Your task to perform on an android device: add a contact Image 0: 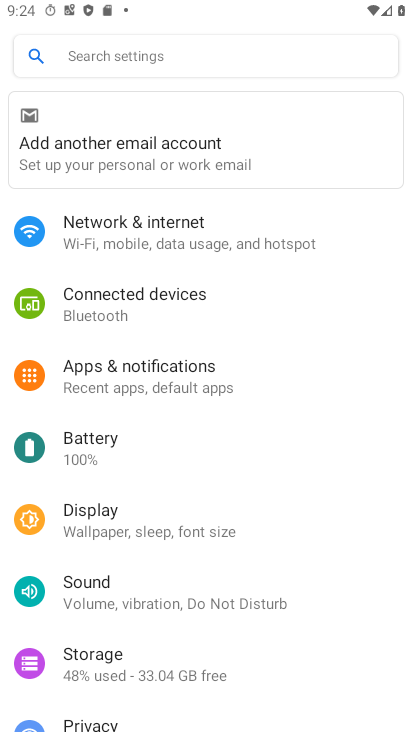
Step 0: press home button
Your task to perform on an android device: add a contact Image 1: 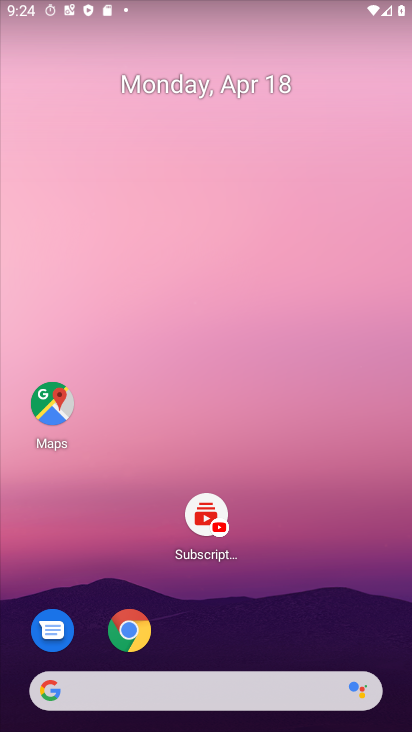
Step 1: drag from (225, 470) to (230, 120)
Your task to perform on an android device: add a contact Image 2: 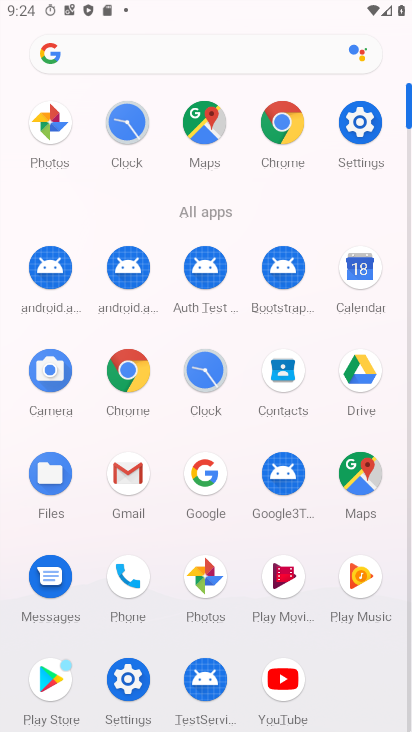
Step 2: click (286, 382)
Your task to perform on an android device: add a contact Image 3: 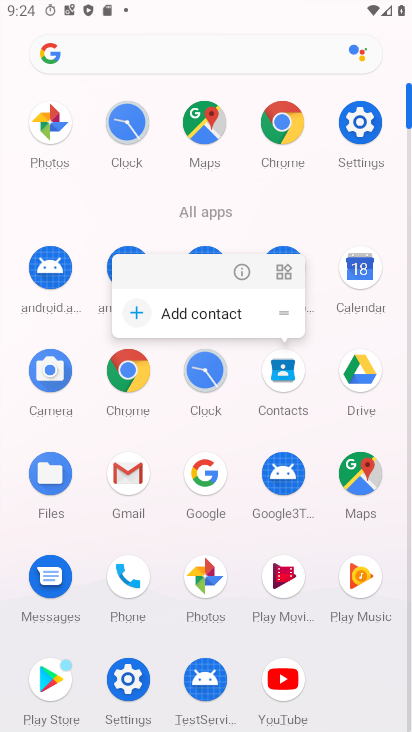
Step 3: click (286, 381)
Your task to perform on an android device: add a contact Image 4: 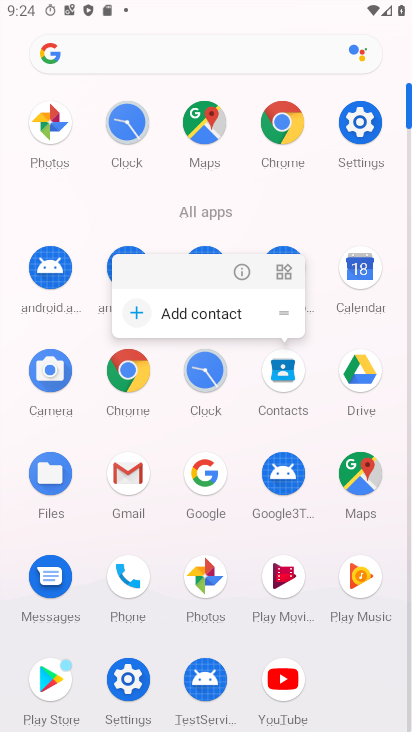
Step 4: click (286, 378)
Your task to perform on an android device: add a contact Image 5: 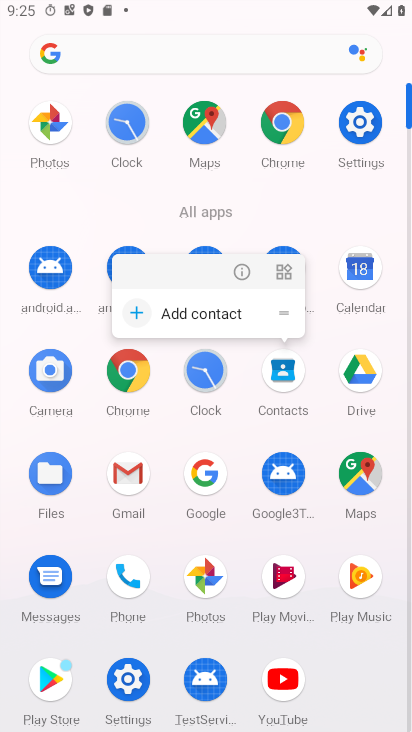
Step 5: click (278, 367)
Your task to perform on an android device: add a contact Image 6: 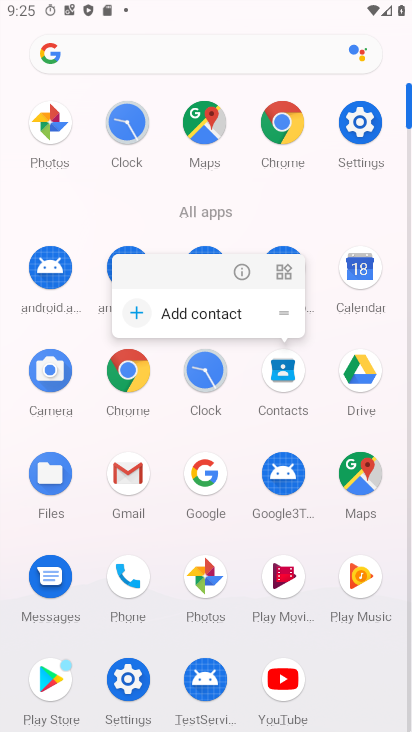
Step 6: click (290, 383)
Your task to perform on an android device: add a contact Image 7: 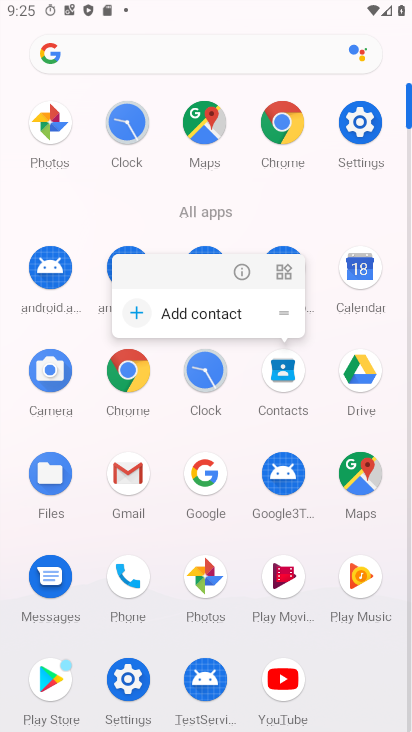
Step 7: click (283, 373)
Your task to perform on an android device: add a contact Image 8: 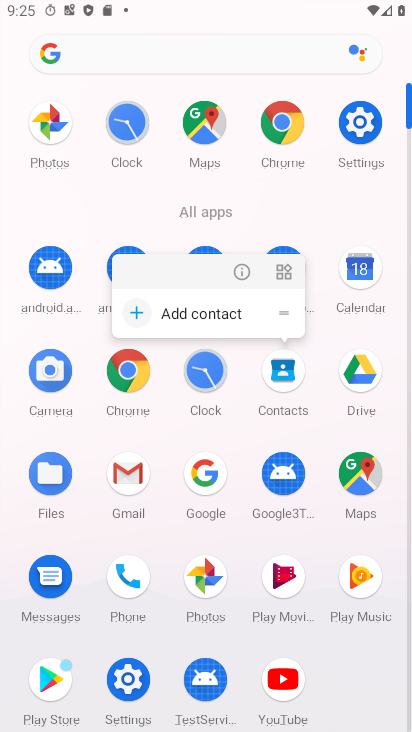
Step 8: click (284, 372)
Your task to perform on an android device: add a contact Image 9: 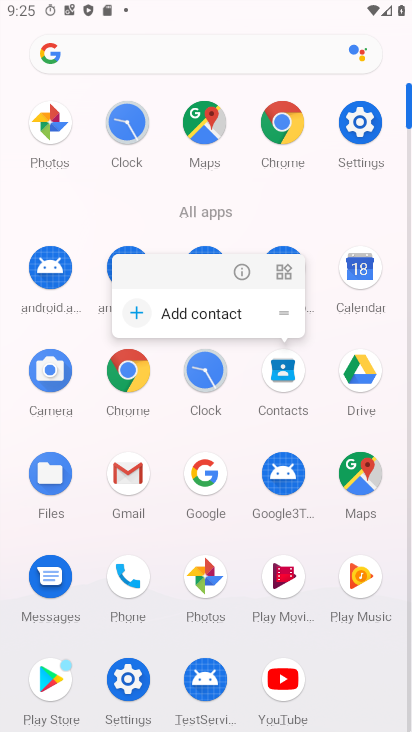
Step 9: click (284, 372)
Your task to perform on an android device: add a contact Image 10: 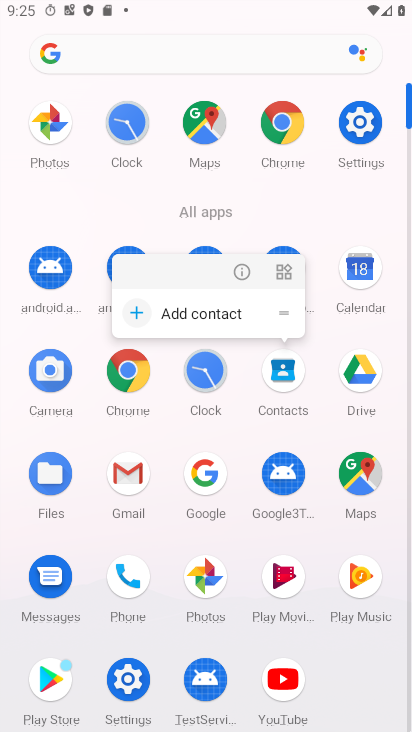
Step 10: click (282, 378)
Your task to perform on an android device: add a contact Image 11: 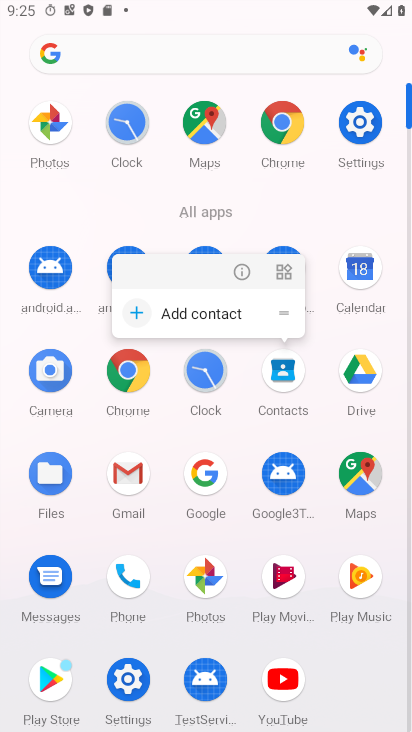
Step 11: click (281, 389)
Your task to perform on an android device: add a contact Image 12: 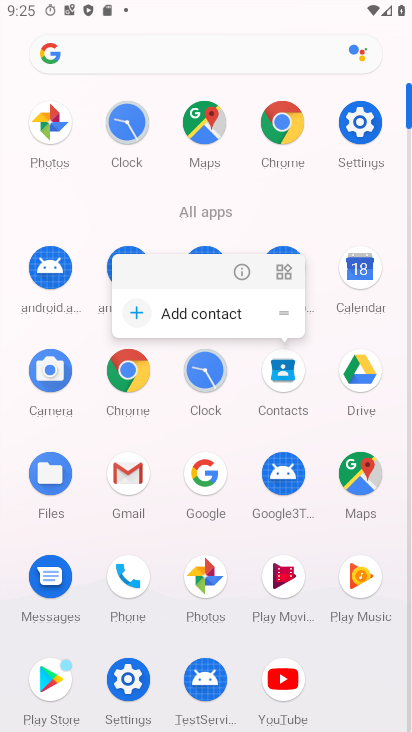
Step 12: click (291, 369)
Your task to perform on an android device: add a contact Image 13: 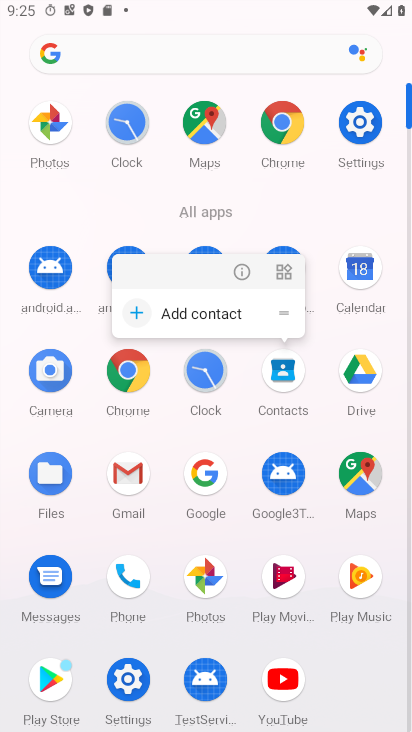
Step 13: click (287, 382)
Your task to perform on an android device: add a contact Image 14: 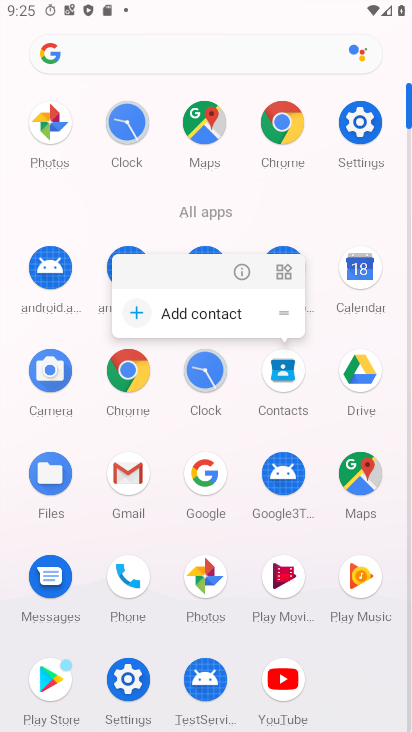
Step 14: click (283, 381)
Your task to perform on an android device: add a contact Image 15: 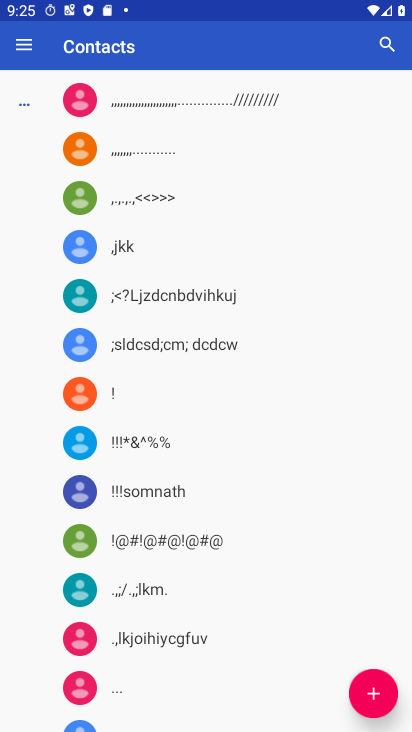
Step 15: click (372, 683)
Your task to perform on an android device: add a contact Image 16: 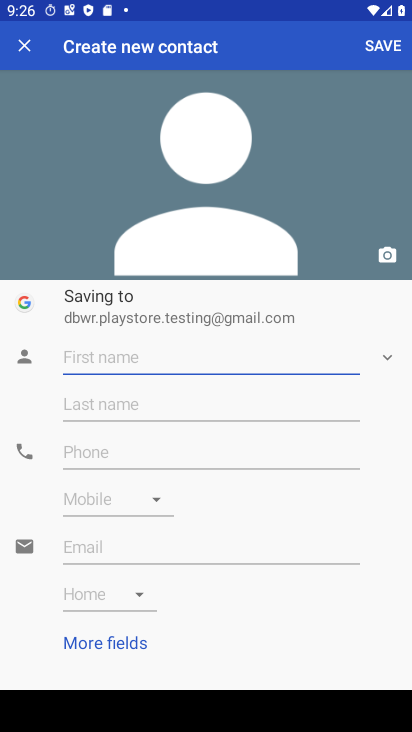
Step 16: type "mm"
Your task to perform on an android device: add a contact Image 17: 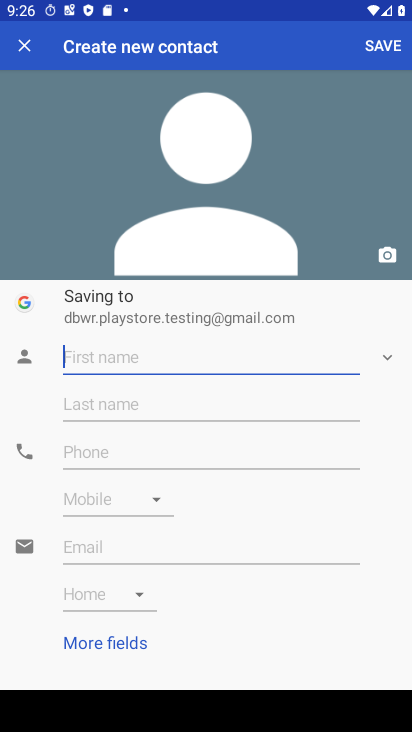
Step 17: click (158, 402)
Your task to perform on an android device: add a contact Image 18: 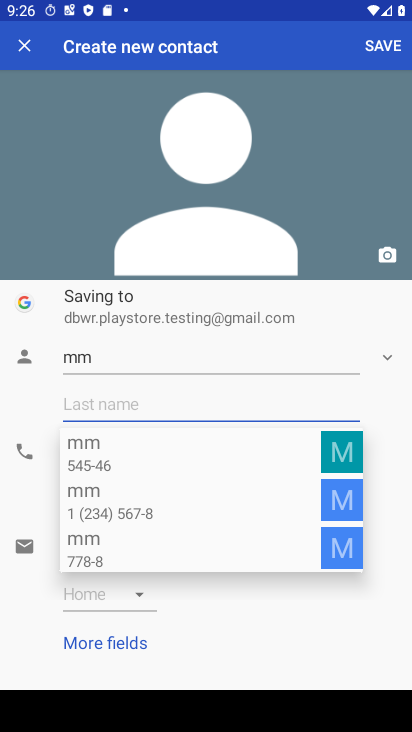
Step 18: type "k"
Your task to perform on an android device: add a contact Image 19: 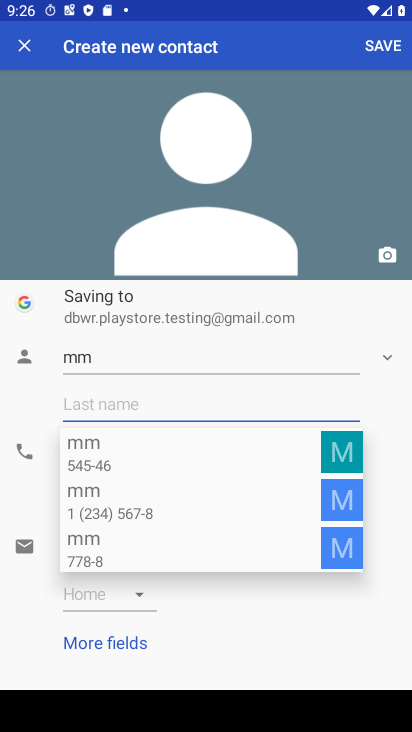
Step 19: click (107, 582)
Your task to perform on an android device: add a contact Image 20: 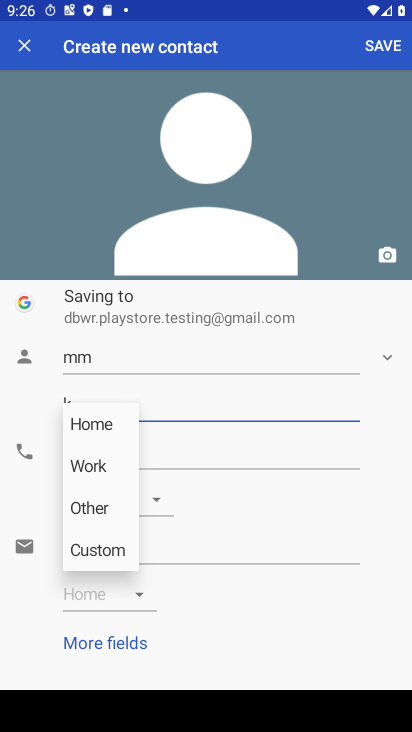
Step 20: click (173, 447)
Your task to perform on an android device: add a contact Image 21: 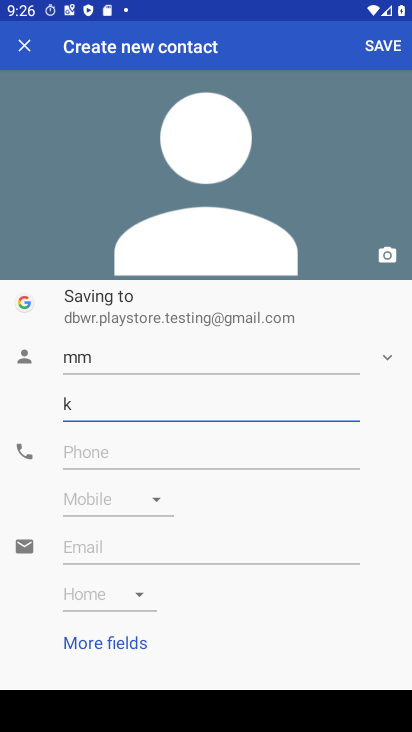
Step 21: click (143, 455)
Your task to perform on an android device: add a contact Image 22: 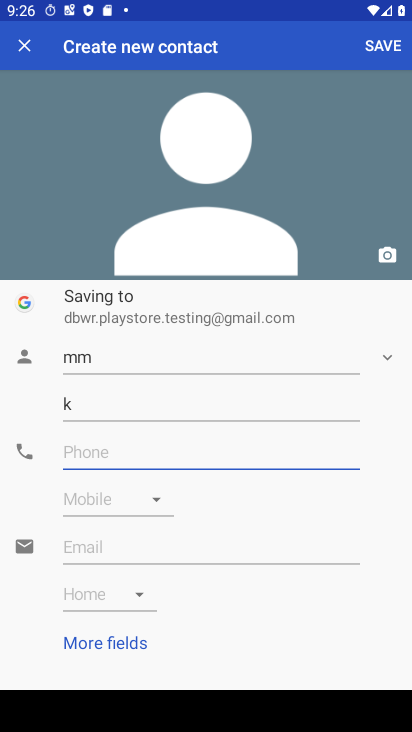
Step 22: click (104, 447)
Your task to perform on an android device: add a contact Image 23: 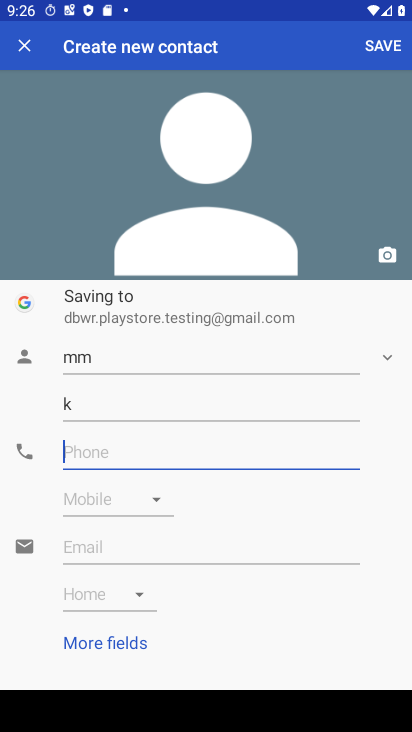
Step 23: type "788989"
Your task to perform on an android device: add a contact Image 24: 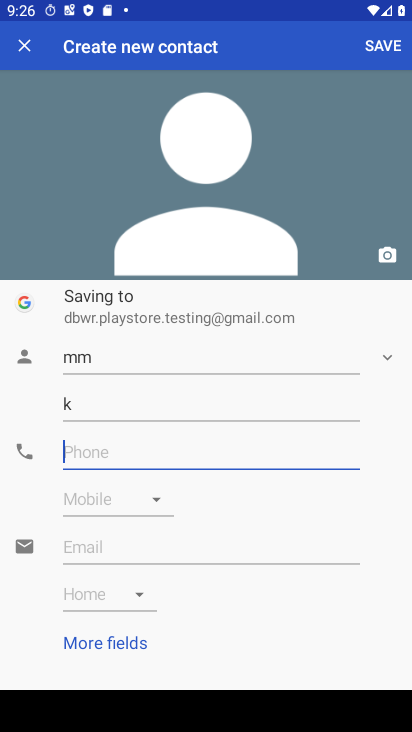
Step 24: click (383, 47)
Your task to perform on an android device: add a contact Image 25: 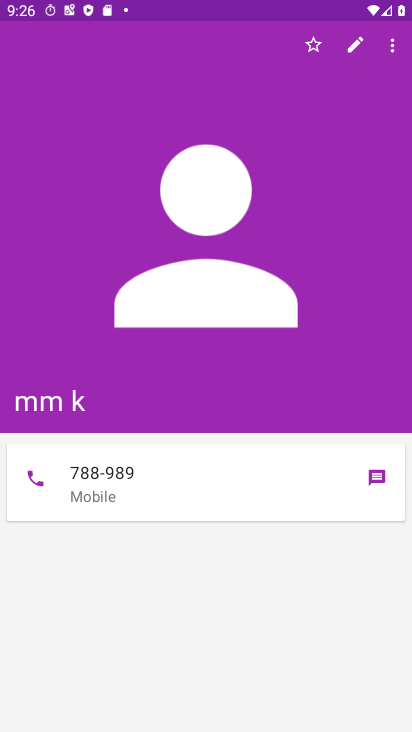
Step 25: task complete